Your task to perform on an android device: turn on the 24-hour format for clock Image 0: 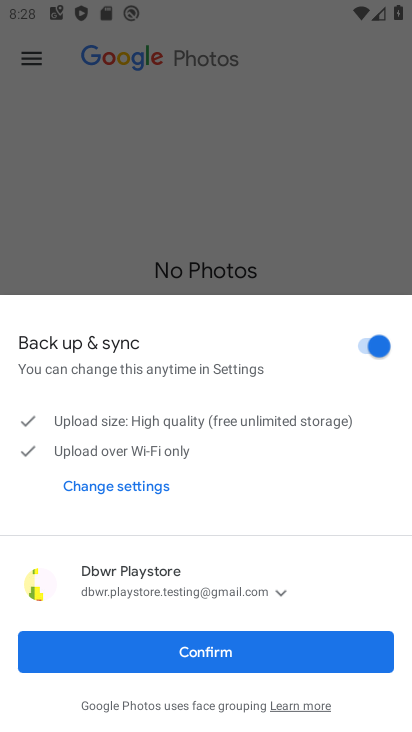
Step 0: press home button
Your task to perform on an android device: turn on the 24-hour format for clock Image 1: 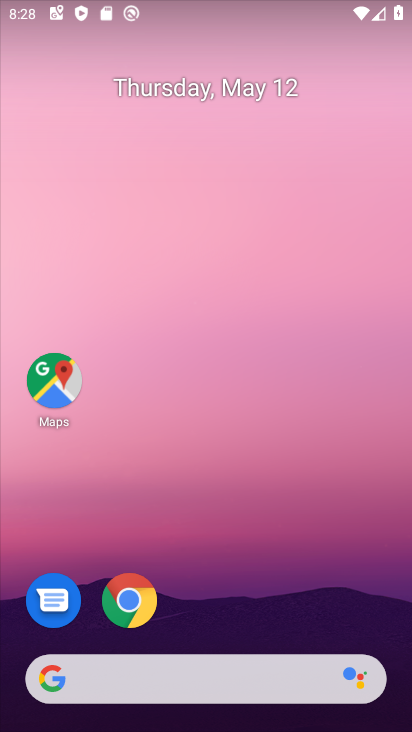
Step 1: drag from (161, 647) to (169, 337)
Your task to perform on an android device: turn on the 24-hour format for clock Image 2: 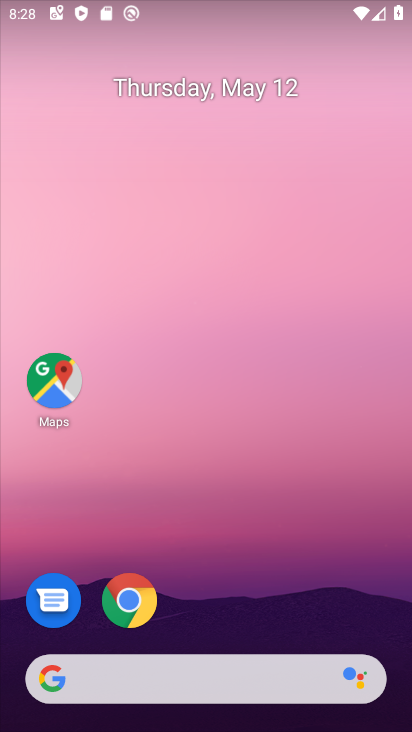
Step 2: drag from (198, 568) to (159, 154)
Your task to perform on an android device: turn on the 24-hour format for clock Image 3: 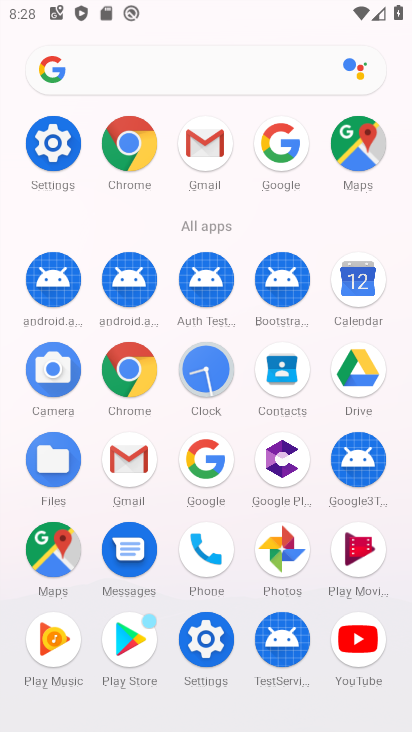
Step 3: click (204, 385)
Your task to perform on an android device: turn on the 24-hour format for clock Image 4: 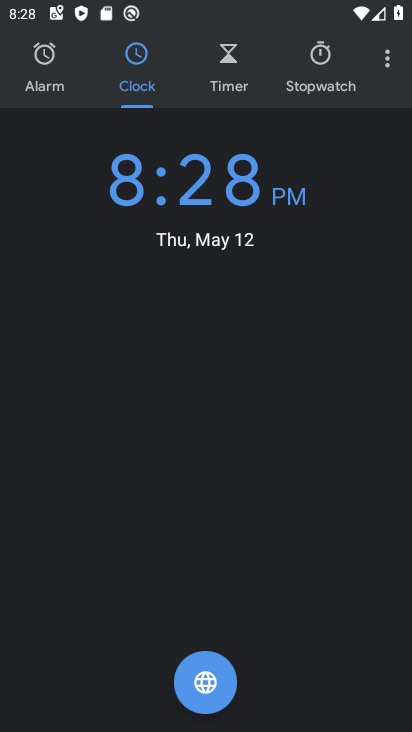
Step 4: click (385, 72)
Your task to perform on an android device: turn on the 24-hour format for clock Image 5: 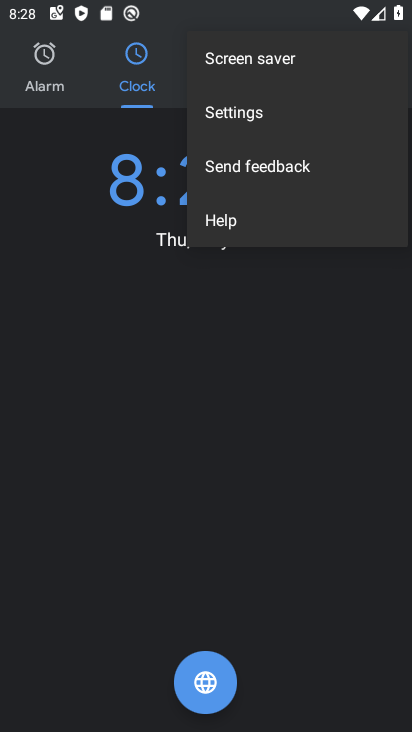
Step 5: click (269, 132)
Your task to perform on an android device: turn on the 24-hour format for clock Image 6: 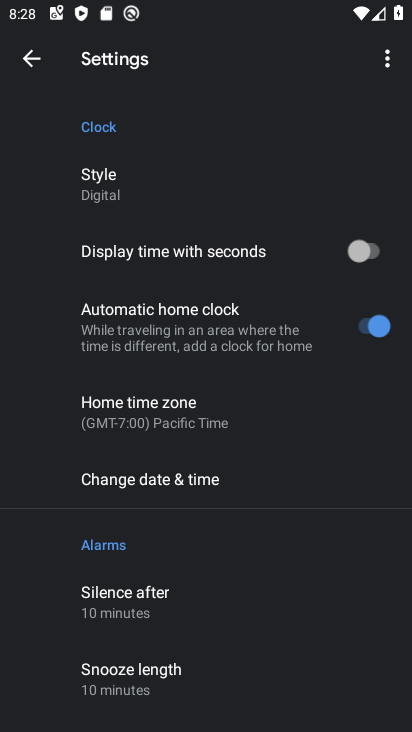
Step 6: click (190, 487)
Your task to perform on an android device: turn on the 24-hour format for clock Image 7: 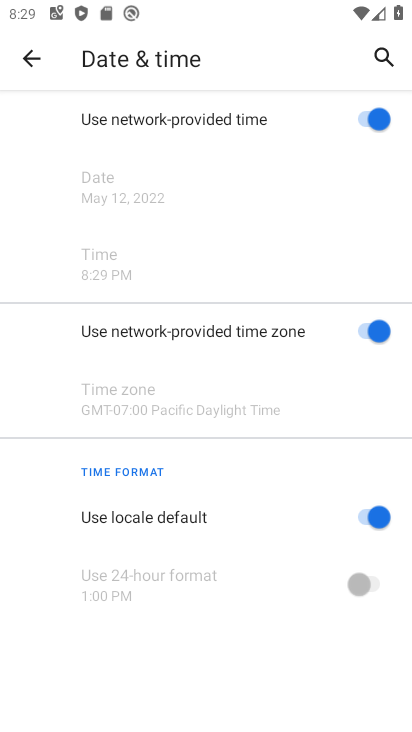
Step 7: click (369, 519)
Your task to perform on an android device: turn on the 24-hour format for clock Image 8: 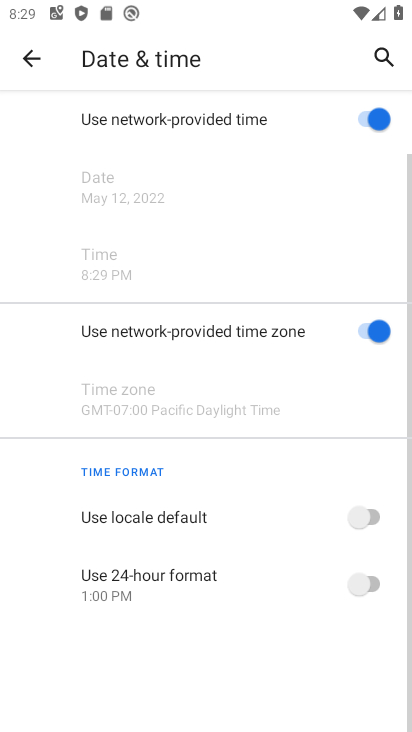
Step 8: click (377, 593)
Your task to perform on an android device: turn on the 24-hour format for clock Image 9: 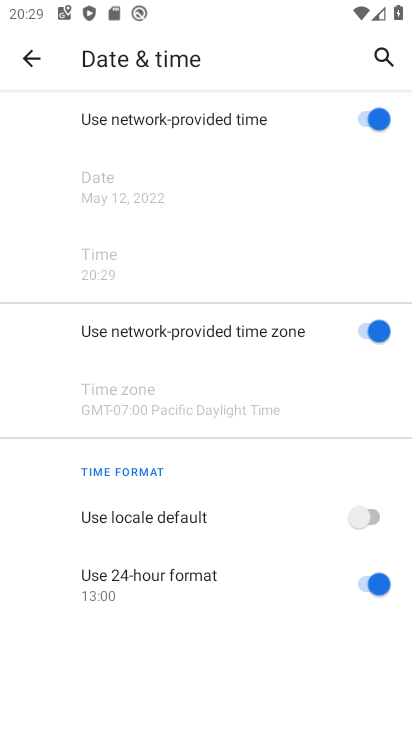
Step 9: task complete